Your task to perform on an android device: change the clock display to digital Image 0: 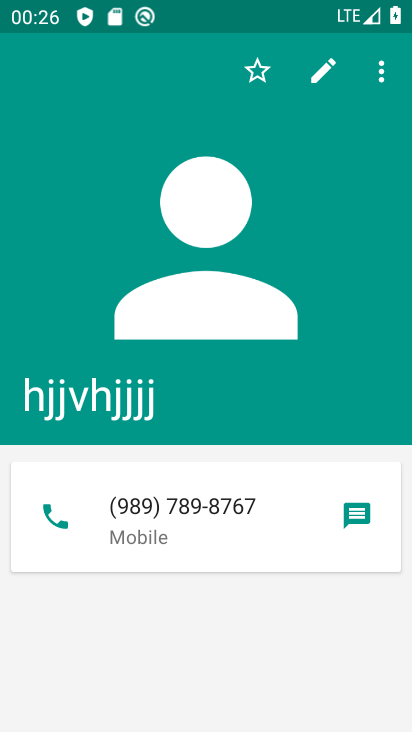
Step 0: press home button
Your task to perform on an android device: change the clock display to digital Image 1: 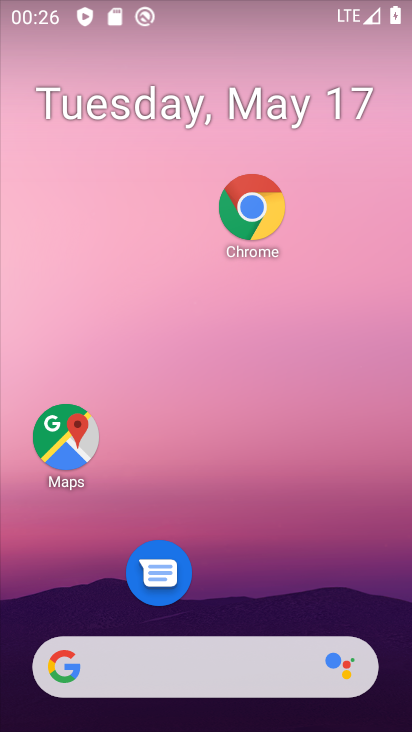
Step 1: drag from (204, 697) to (206, 169)
Your task to perform on an android device: change the clock display to digital Image 2: 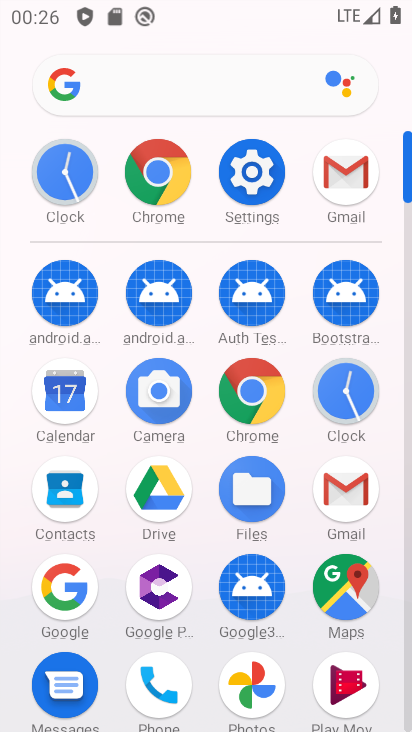
Step 2: click (338, 391)
Your task to perform on an android device: change the clock display to digital Image 3: 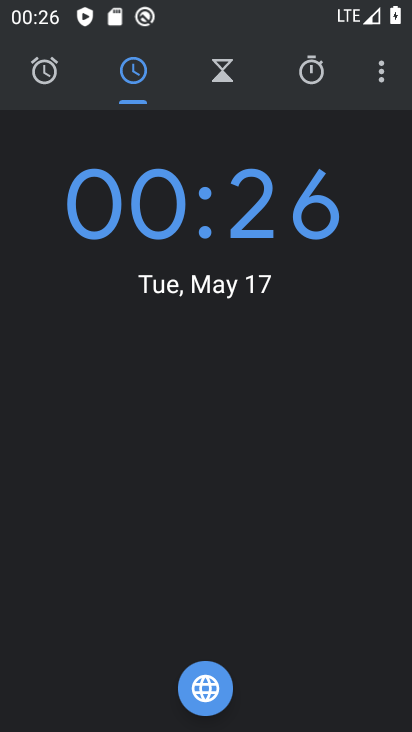
Step 3: click (381, 77)
Your task to perform on an android device: change the clock display to digital Image 4: 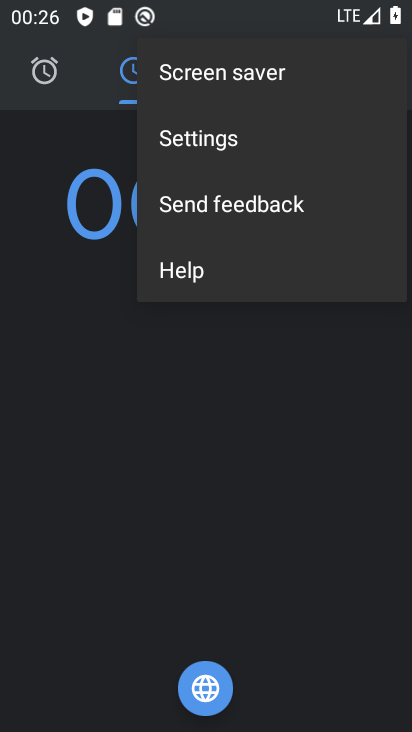
Step 4: click (227, 130)
Your task to perform on an android device: change the clock display to digital Image 5: 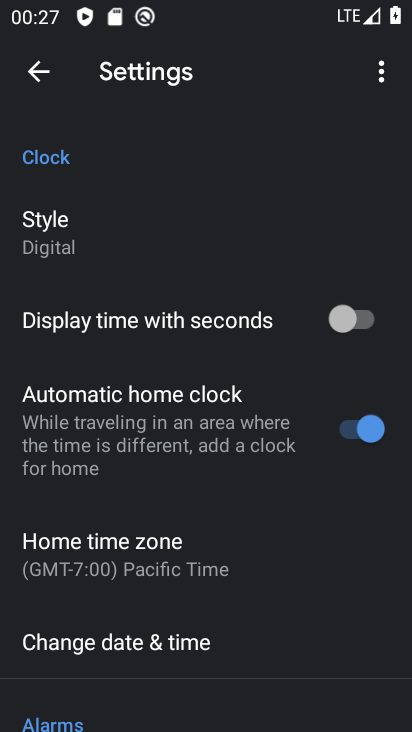
Step 5: task complete